Your task to perform on an android device: turn off notifications in google photos Image 0: 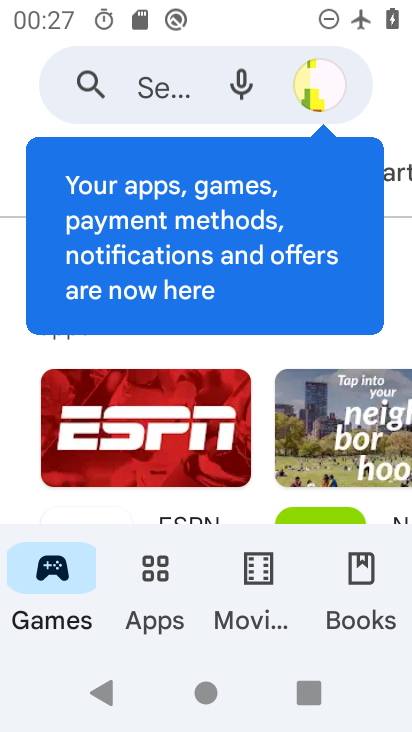
Step 0: press home button
Your task to perform on an android device: turn off notifications in google photos Image 1: 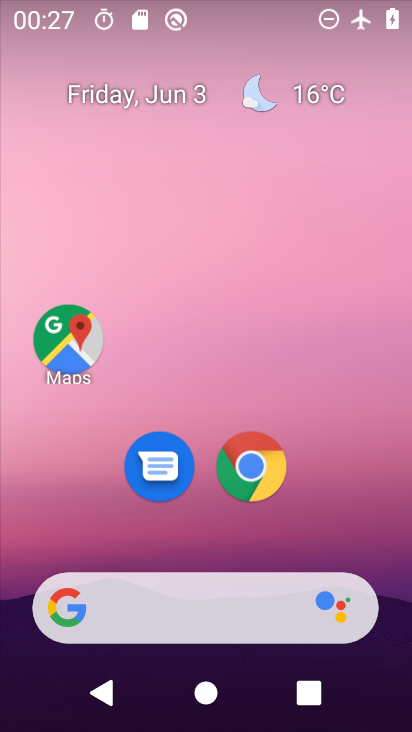
Step 1: drag from (200, 529) to (234, 226)
Your task to perform on an android device: turn off notifications in google photos Image 2: 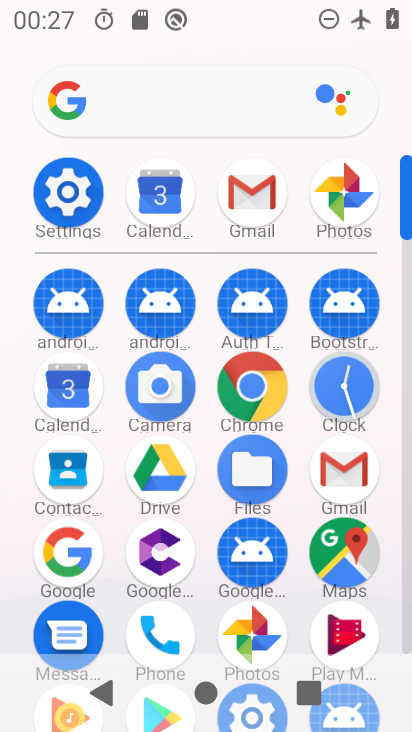
Step 2: click (340, 208)
Your task to perform on an android device: turn off notifications in google photos Image 3: 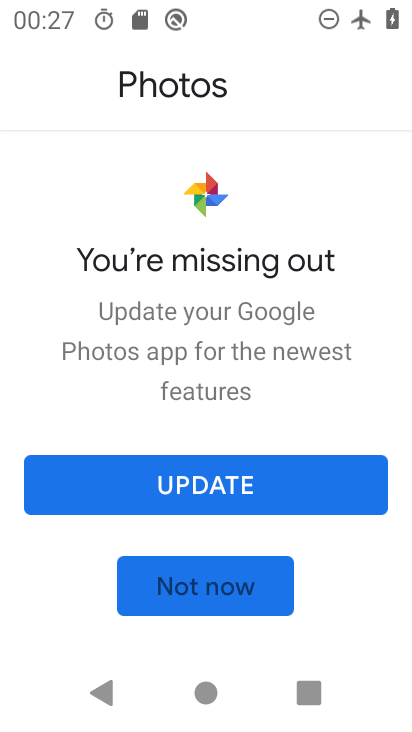
Step 3: click (231, 575)
Your task to perform on an android device: turn off notifications in google photos Image 4: 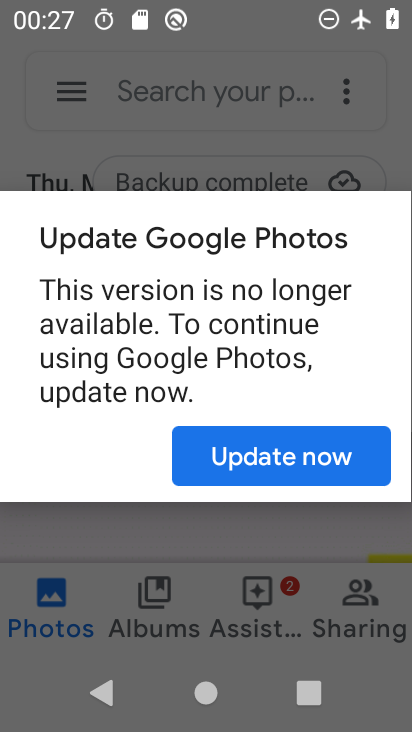
Step 4: click (239, 467)
Your task to perform on an android device: turn off notifications in google photos Image 5: 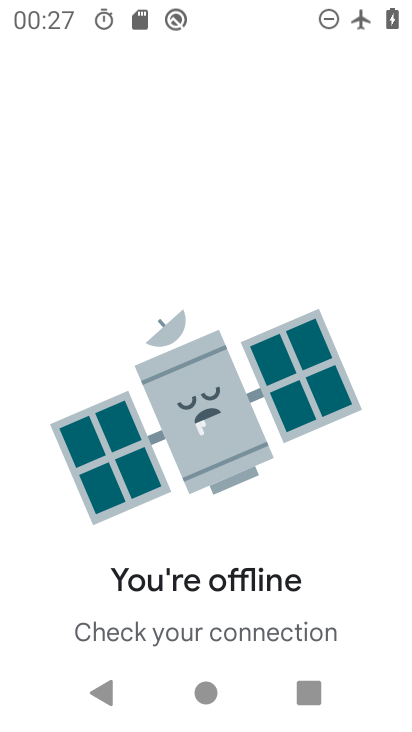
Step 5: press back button
Your task to perform on an android device: turn off notifications in google photos Image 6: 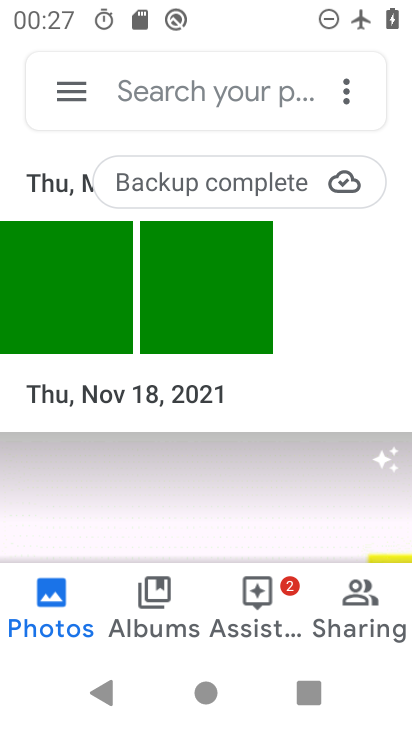
Step 6: click (56, 89)
Your task to perform on an android device: turn off notifications in google photos Image 7: 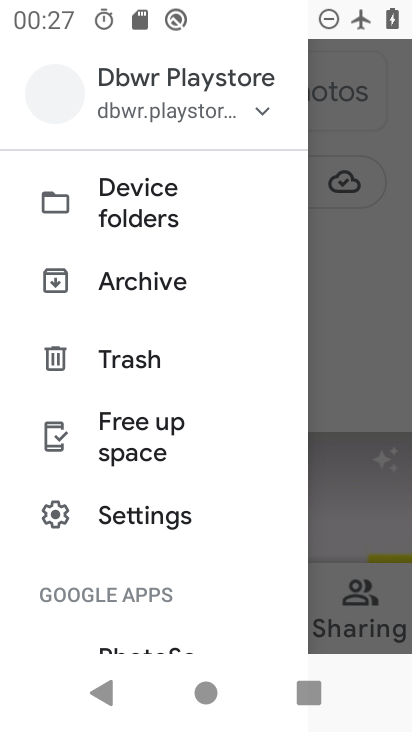
Step 7: drag from (201, 569) to (214, 285)
Your task to perform on an android device: turn off notifications in google photos Image 8: 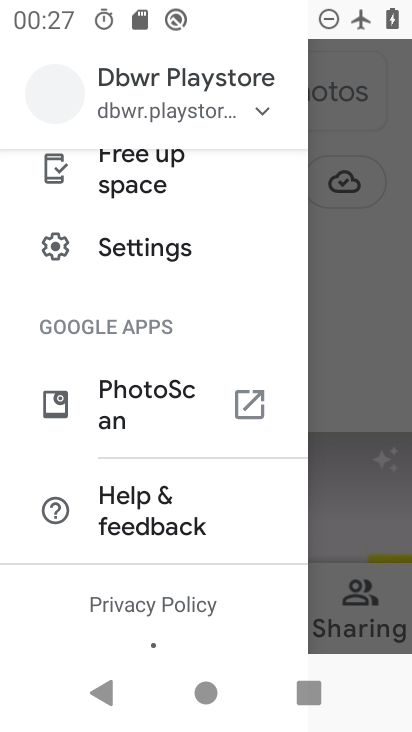
Step 8: drag from (181, 506) to (188, 334)
Your task to perform on an android device: turn off notifications in google photos Image 9: 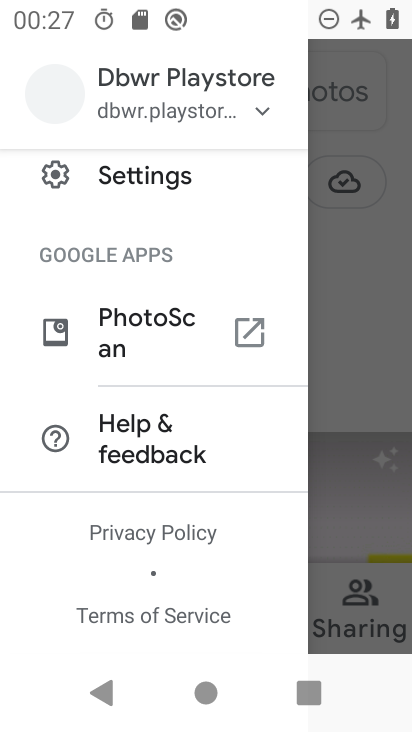
Step 9: drag from (173, 518) to (190, 288)
Your task to perform on an android device: turn off notifications in google photos Image 10: 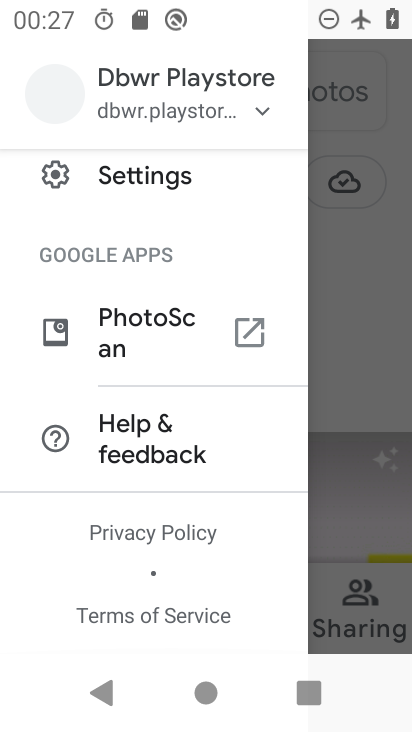
Step 10: click (121, 184)
Your task to perform on an android device: turn off notifications in google photos Image 11: 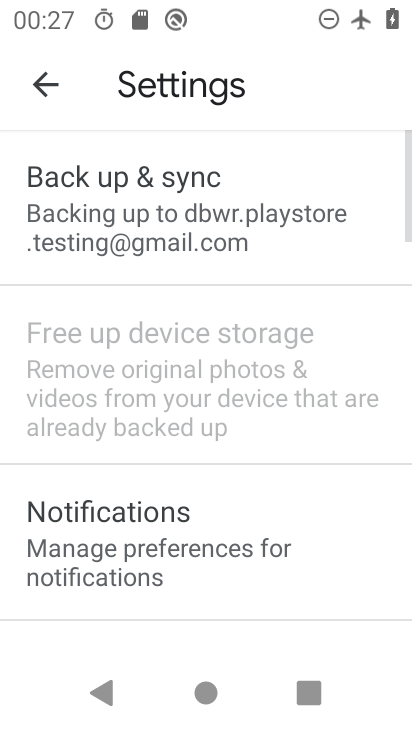
Step 11: click (167, 554)
Your task to perform on an android device: turn off notifications in google photos Image 12: 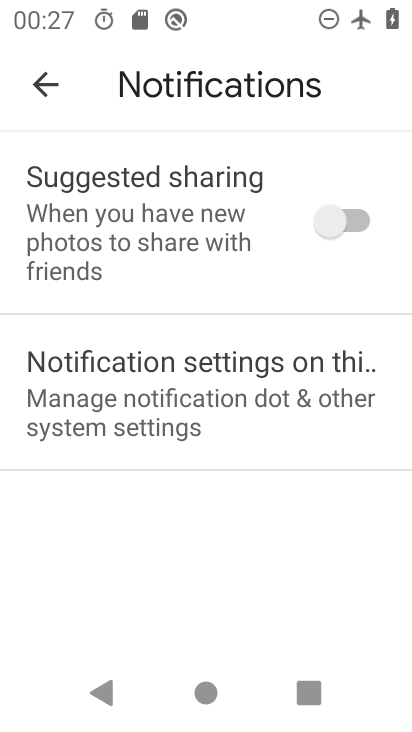
Step 12: drag from (167, 551) to (186, 321)
Your task to perform on an android device: turn off notifications in google photos Image 13: 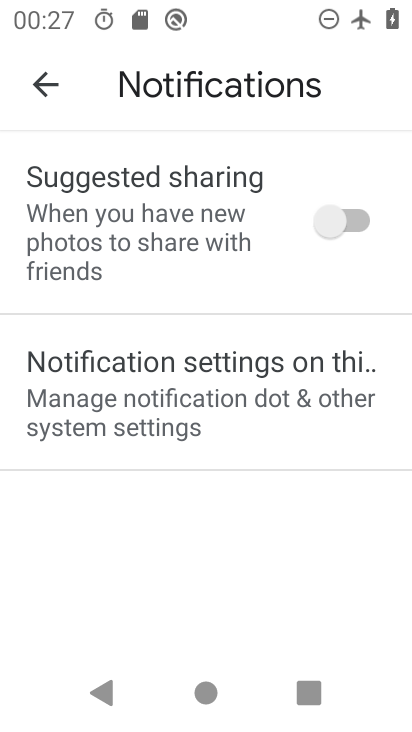
Step 13: click (186, 413)
Your task to perform on an android device: turn off notifications in google photos Image 14: 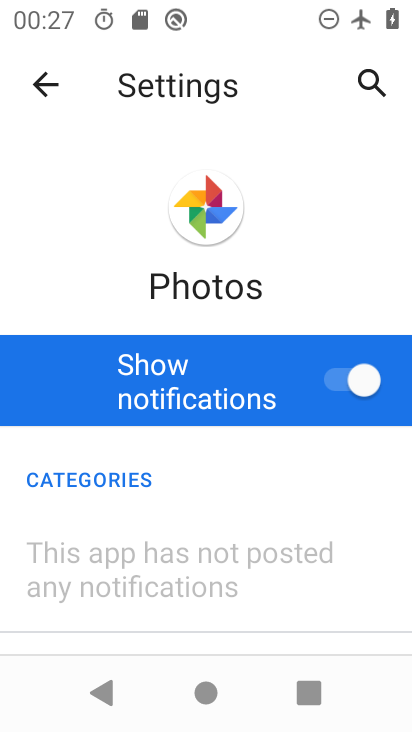
Step 14: click (342, 387)
Your task to perform on an android device: turn off notifications in google photos Image 15: 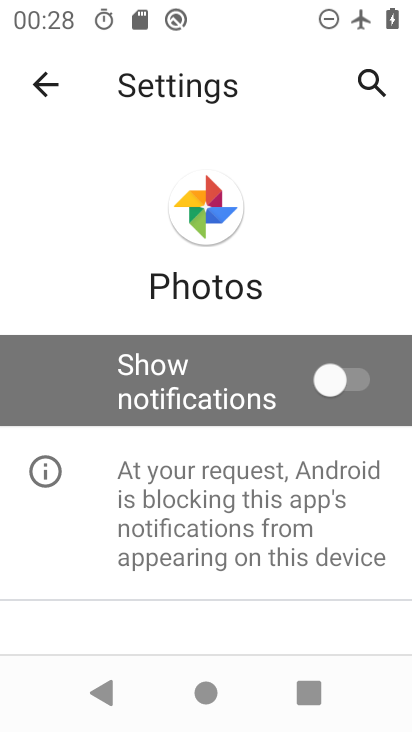
Step 15: task complete